Your task to perform on an android device: check storage Image 0: 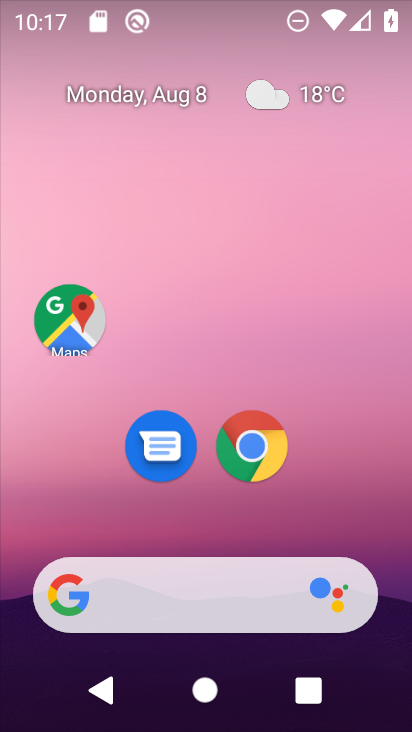
Step 0: drag from (391, 594) to (344, 203)
Your task to perform on an android device: check storage Image 1: 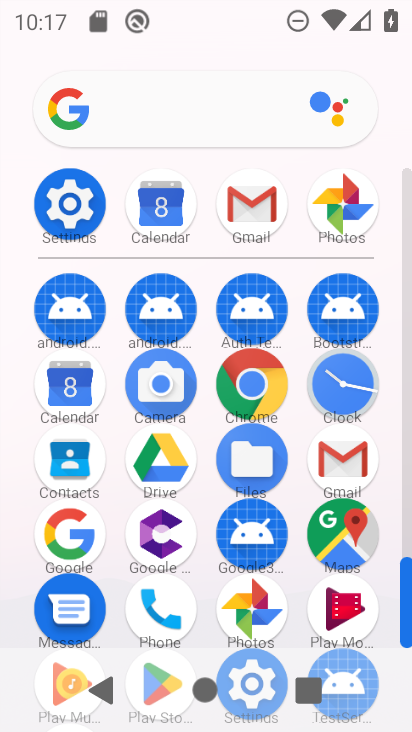
Step 1: click (404, 540)
Your task to perform on an android device: check storage Image 2: 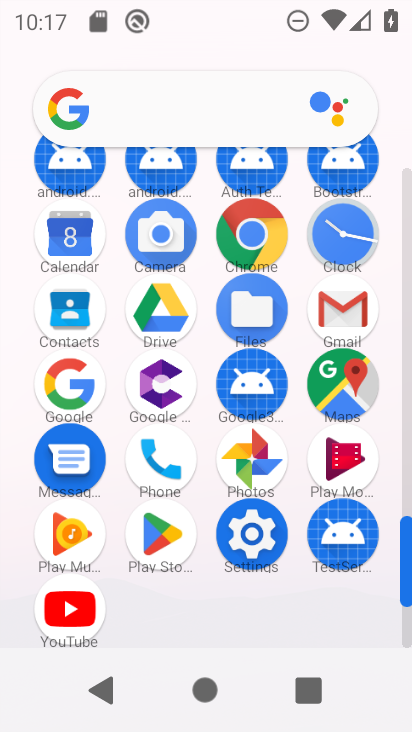
Step 2: click (252, 534)
Your task to perform on an android device: check storage Image 3: 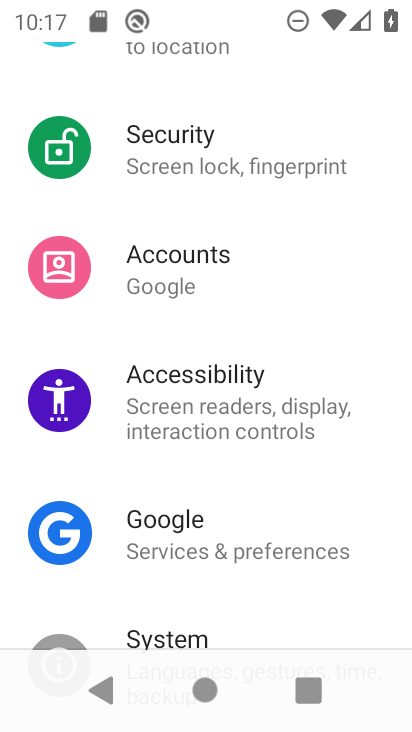
Step 3: drag from (366, 217) to (393, 463)
Your task to perform on an android device: check storage Image 4: 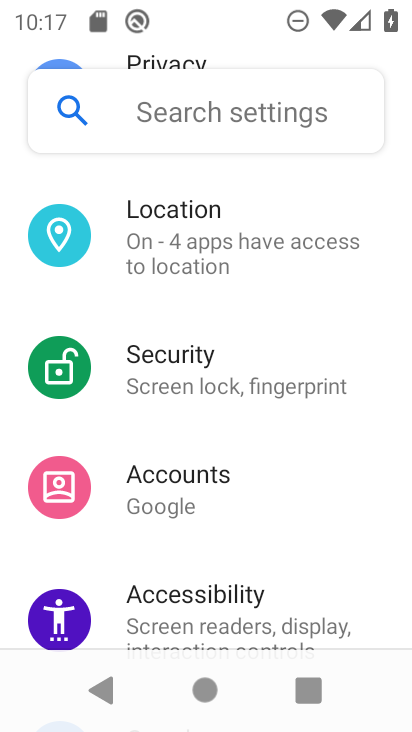
Step 4: drag from (385, 219) to (386, 547)
Your task to perform on an android device: check storage Image 5: 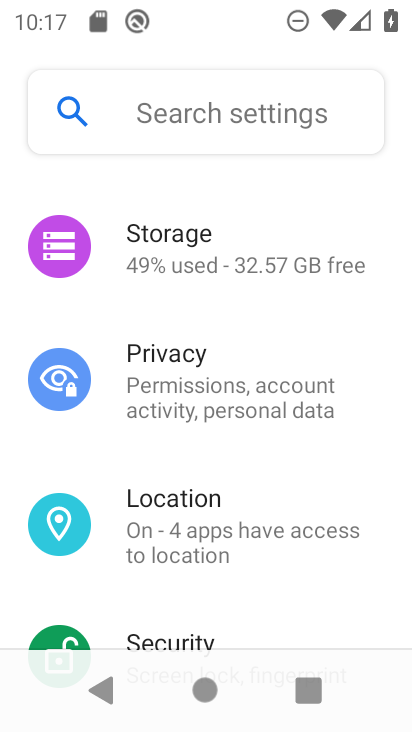
Step 5: click (149, 234)
Your task to perform on an android device: check storage Image 6: 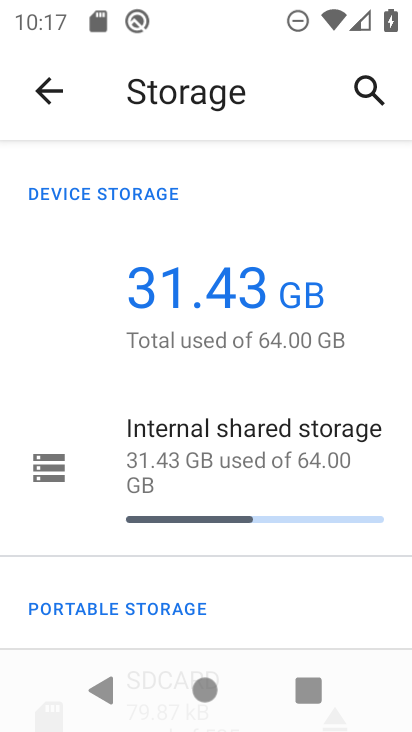
Step 6: task complete